Your task to perform on an android device: Open Google Maps and go to "Timeline" Image 0: 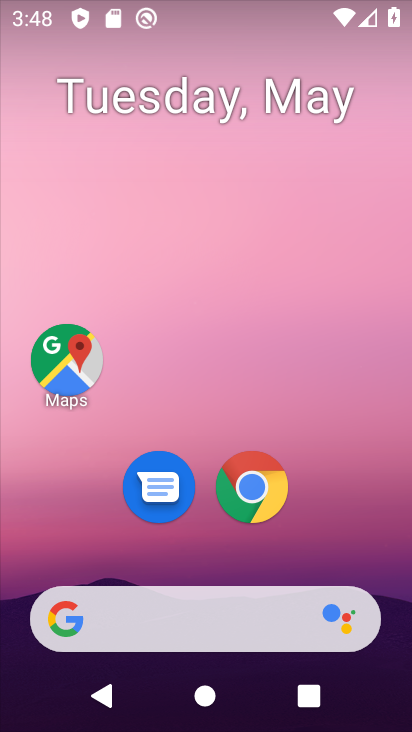
Step 0: drag from (355, 518) to (264, 48)
Your task to perform on an android device: Open Google Maps and go to "Timeline" Image 1: 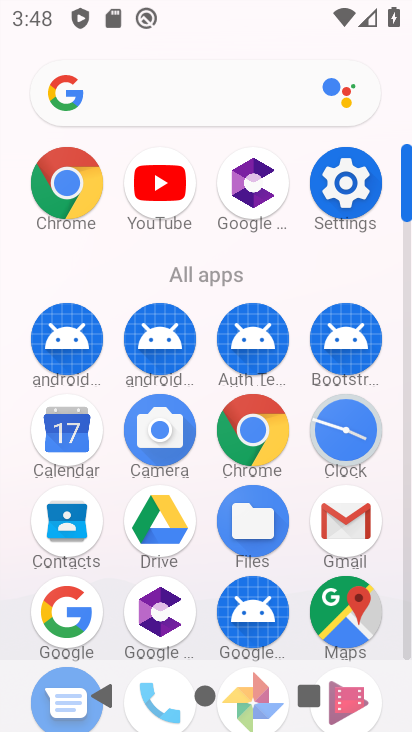
Step 1: click (342, 606)
Your task to perform on an android device: Open Google Maps and go to "Timeline" Image 2: 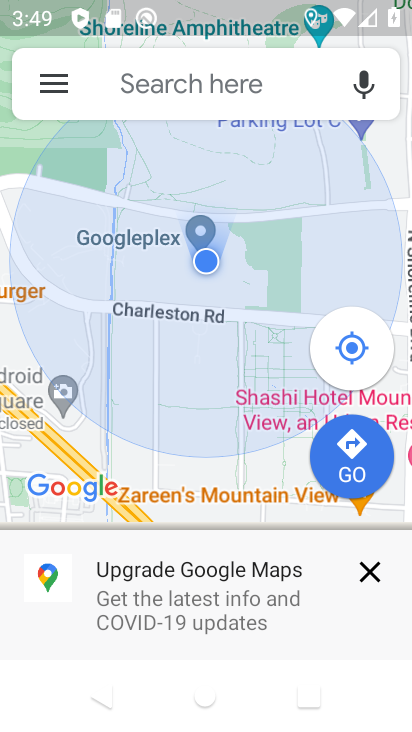
Step 2: click (31, 75)
Your task to perform on an android device: Open Google Maps and go to "Timeline" Image 3: 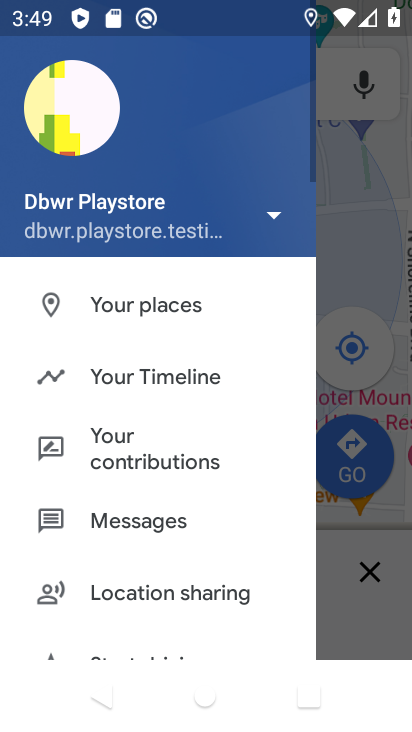
Step 3: click (150, 371)
Your task to perform on an android device: Open Google Maps and go to "Timeline" Image 4: 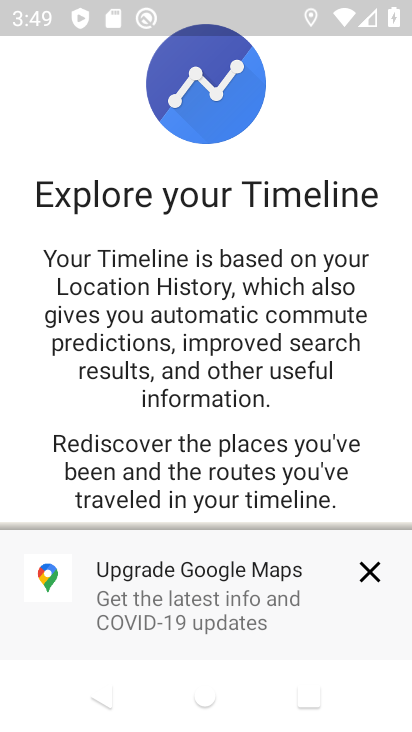
Step 4: click (380, 560)
Your task to perform on an android device: Open Google Maps and go to "Timeline" Image 5: 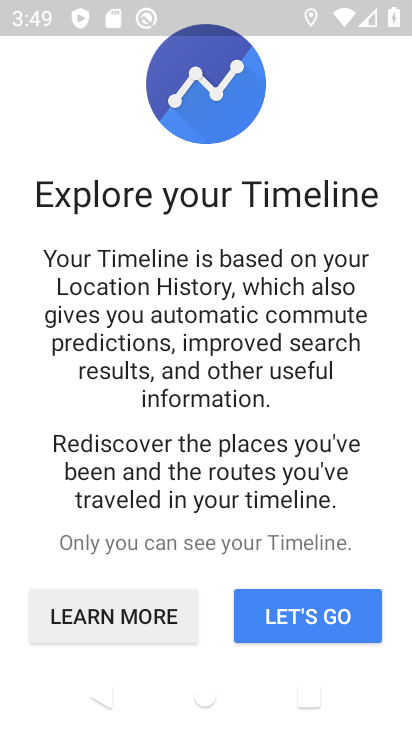
Step 5: click (302, 608)
Your task to perform on an android device: Open Google Maps and go to "Timeline" Image 6: 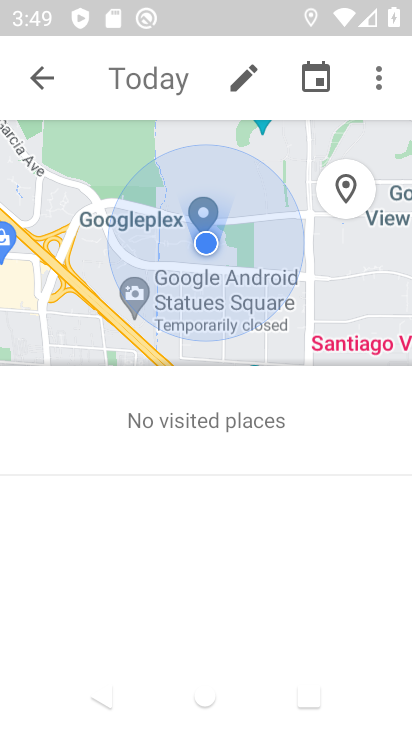
Step 6: task complete